Your task to perform on an android device: turn off picture-in-picture Image 0: 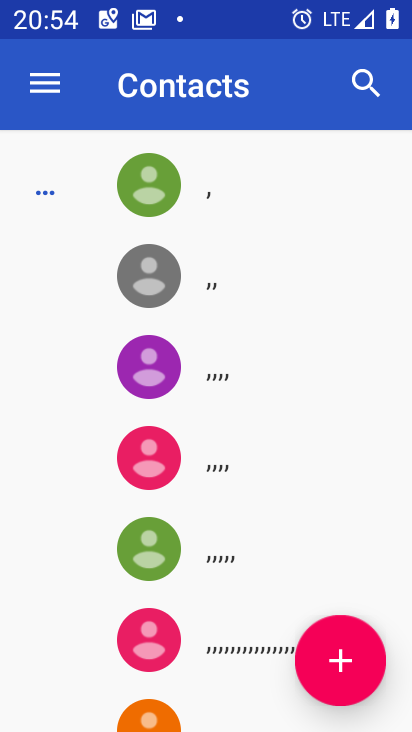
Step 0: press home button
Your task to perform on an android device: turn off picture-in-picture Image 1: 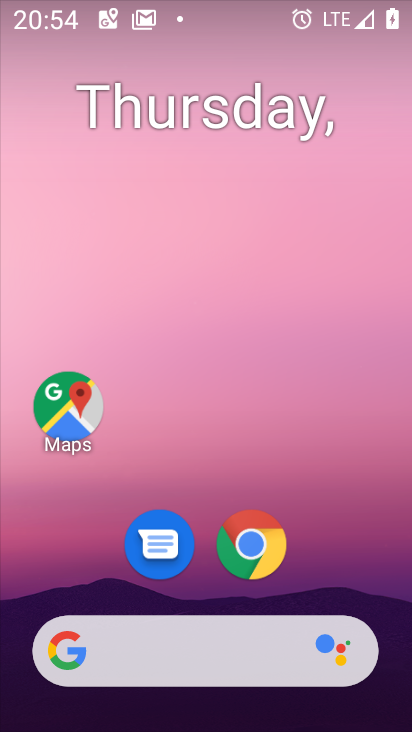
Step 1: click (245, 553)
Your task to perform on an android device: turn off picture-in-picture Image 2: 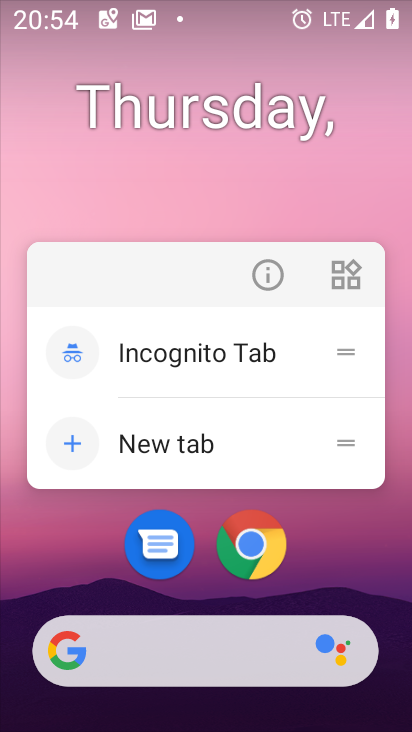
Step 2: click (264, 285)
Your task to perform on an android device: turn off picture-in-picture Image 3: 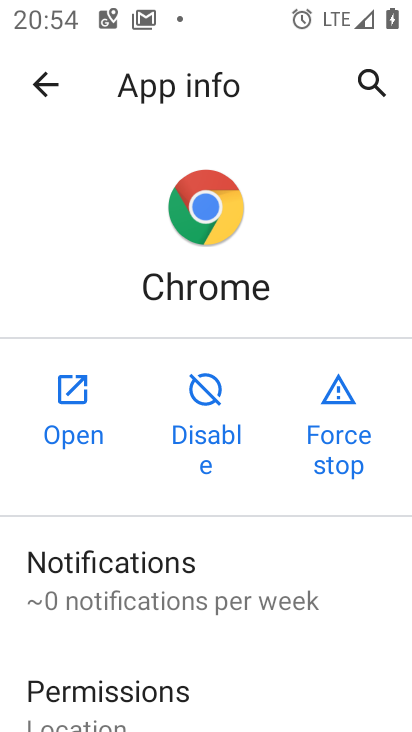
Step 3: drag from (116, 678) to (256, 178)
Your task to perform on an android device: turn off picture-in-picture Image 4: 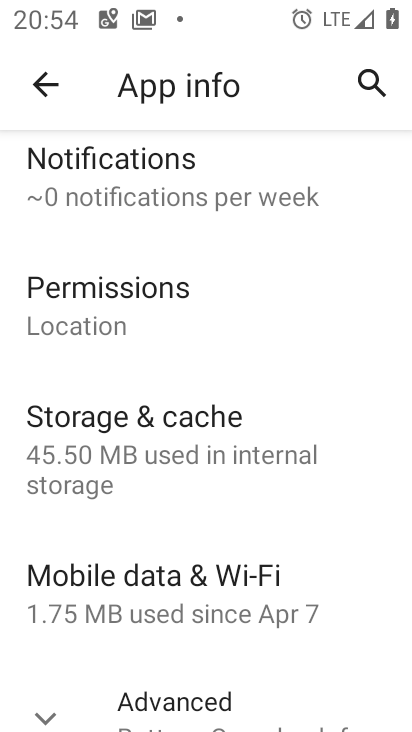
Step 4: drag from (109, 597) to (222, 133)
Your task to perform on an android device: turn off picture-in-picture Image 5: 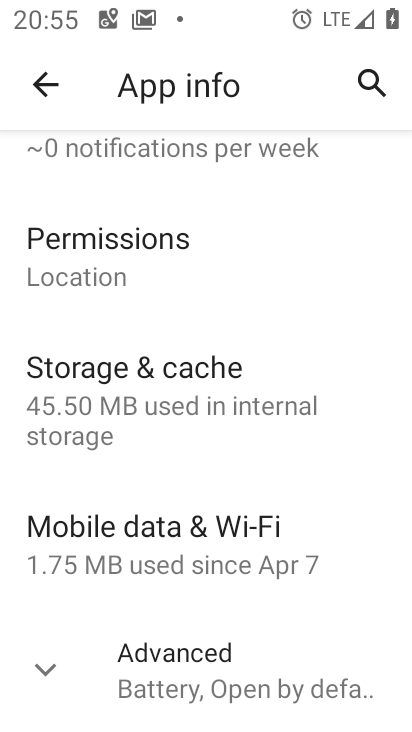
Step 5: click (147, 649)
Your task to perform on an android device: turn off picture-in-picture Image 6: 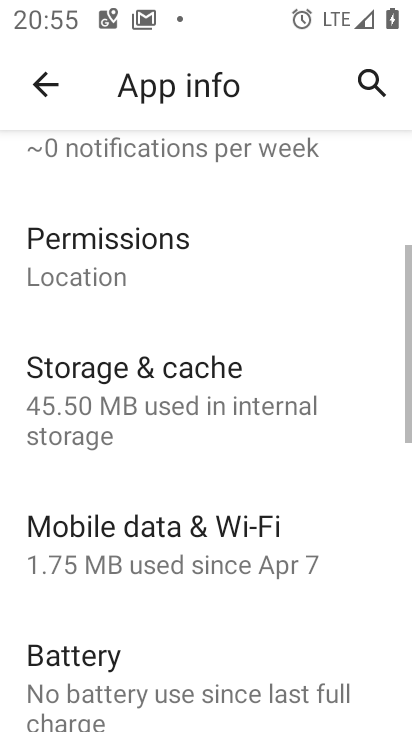
Step 6: drag from (147, 649) to (318, 129)
Your task to perform on an android device: turn off picture-in-picture Image 7: 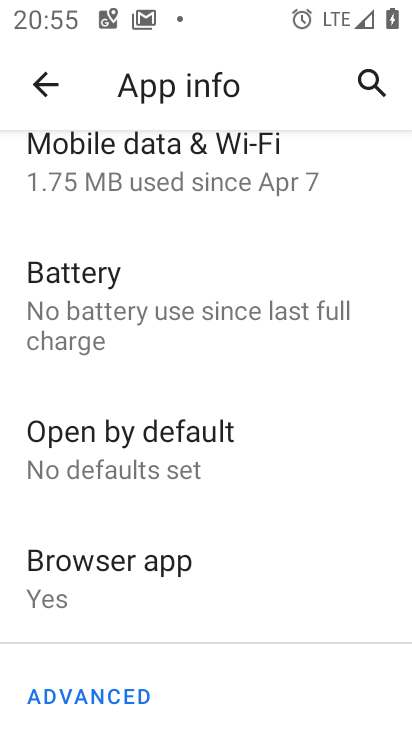
Step 7: drag from (82, 640) to (208, 184)
Your task to perform on an android device: turn off picture-in-picture Image 8: 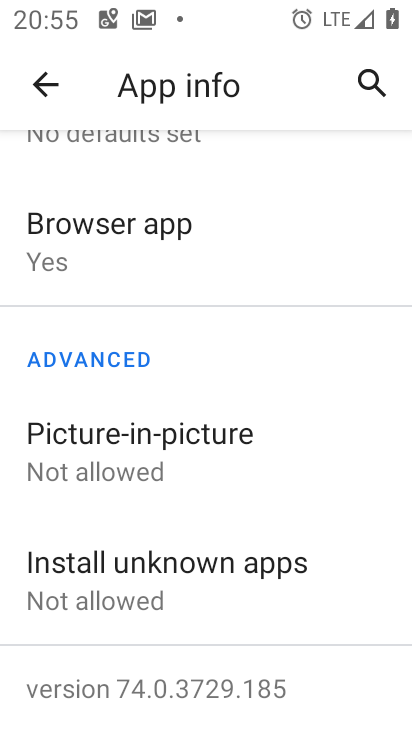
Step 8: drag from (123, 618) to (394, 38)
Your task to perform on an android device: turn off picture-in-picture Image 9: 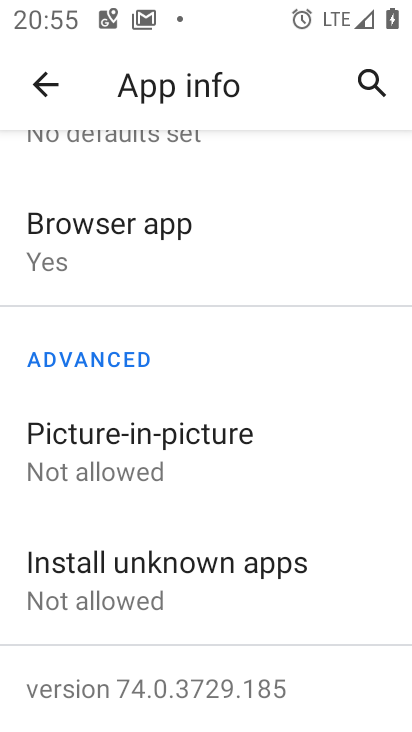
Step 9: click (166, 485)
Your task to perform on an android device: turn off picture-in-picture Image 10: 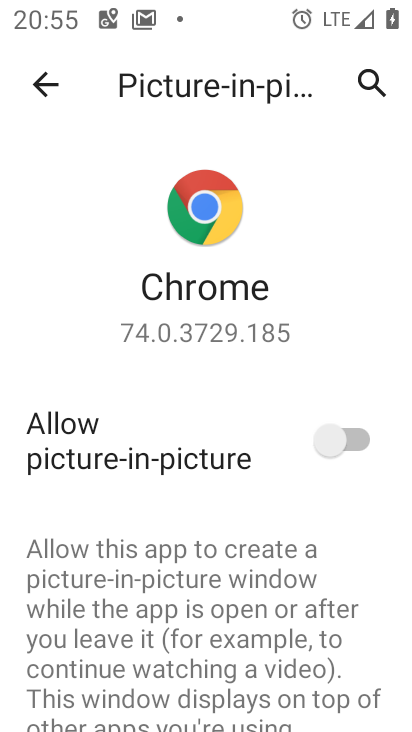
Step 10: task complete